Your task to perform on an android device: snooze an email in the gmail app Image 0: 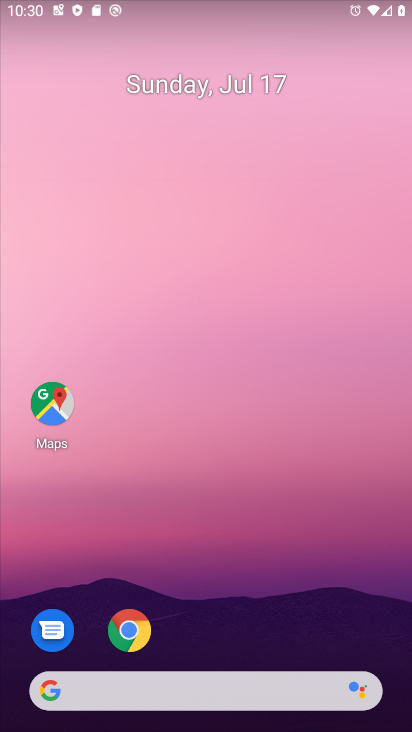
Step 0: press home button
Your task to perform on an android device: snooze an email in the gmail app Image 1: 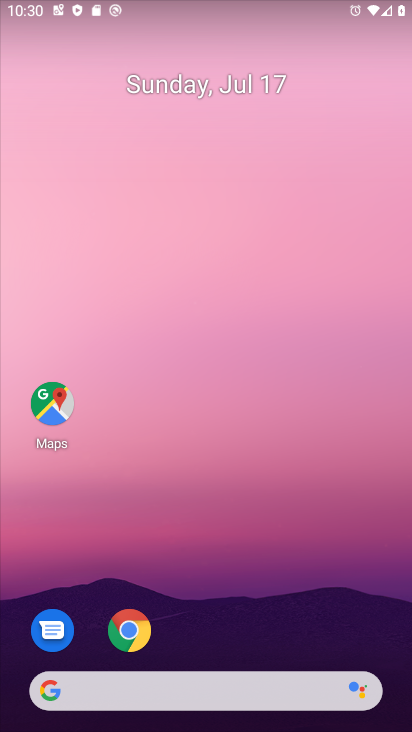
Step 1: click (343, 83)
Your task to perform on an android device: snooze an email in the gmail app Image 2: 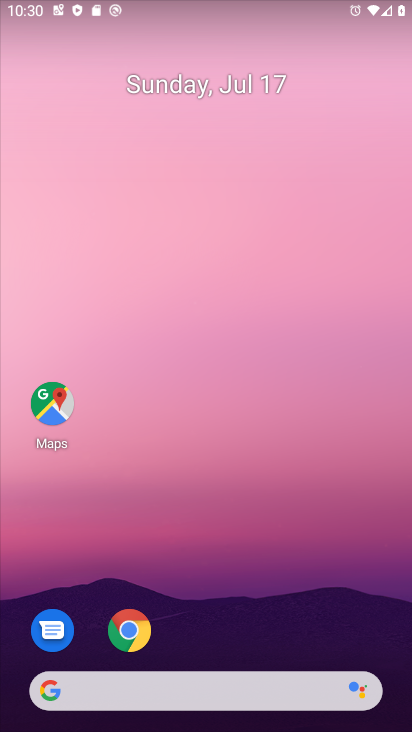
Step 2: drag from (342, 557) to (384, 92)
Your task to perform on an android device: snooze an email in the gmail app Image 3: 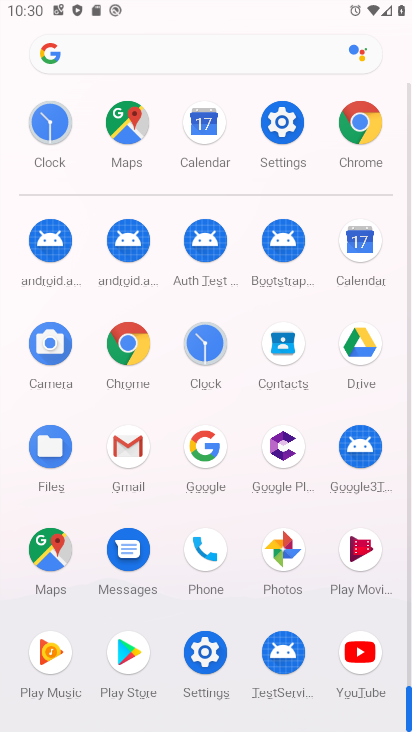
Step 3: click (130, 452)
Your task to perform on an android device: snooze an email in the gmail app Image 4: 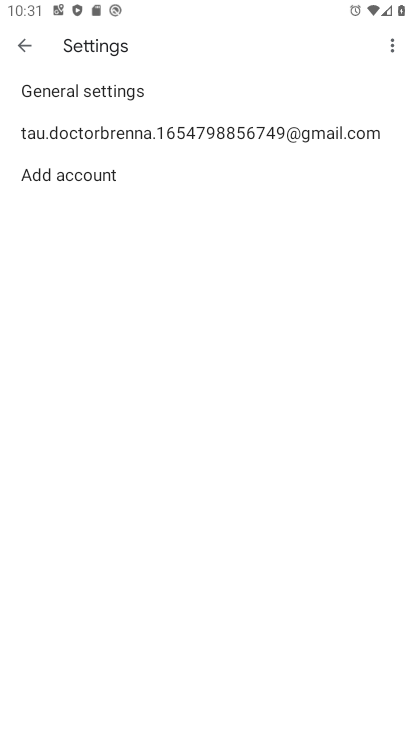
Step 4: press home button
Your task to perform on an android device: snooze an email in the gmail app Image 5: 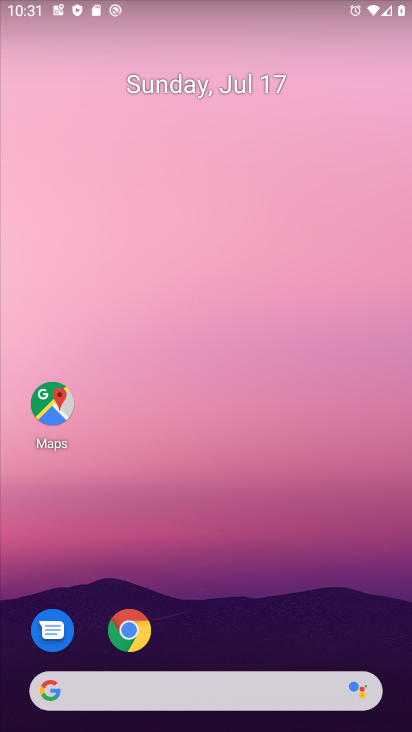
Step 5: drag from (378, 609) to (368, 91)
Your task to perform on an android device: snooze an email in the gmail app Image 6: 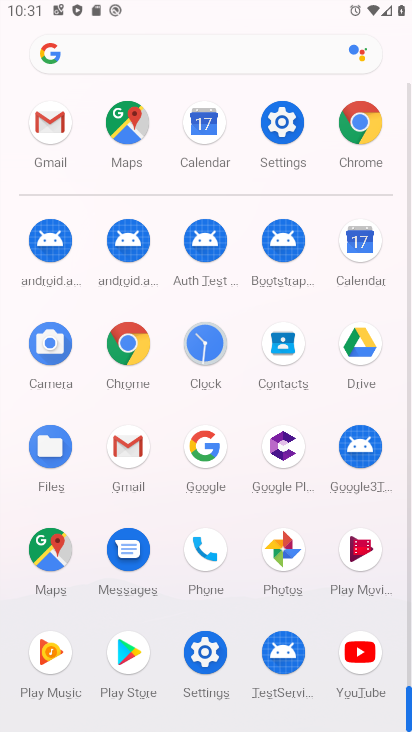
Step 6: click (125, 445)
Your task to perform on an android device: snooze an email in the gmail app Image 7: 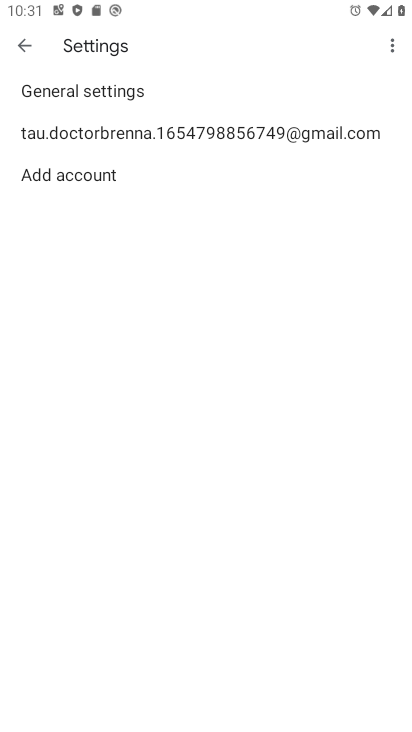
Step 7: press back button
Your task to perform on an android device: snooze an email in the gmail app Image 8: 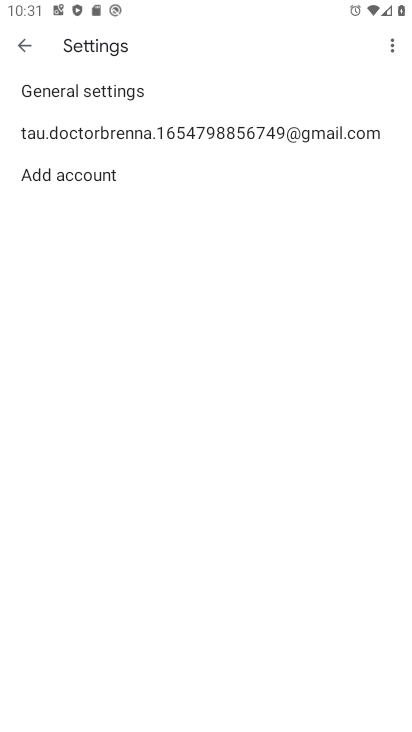
Step 8: click (22, 39)
Your task to perform on an android device: snooze an email in the gmail app Image 9: 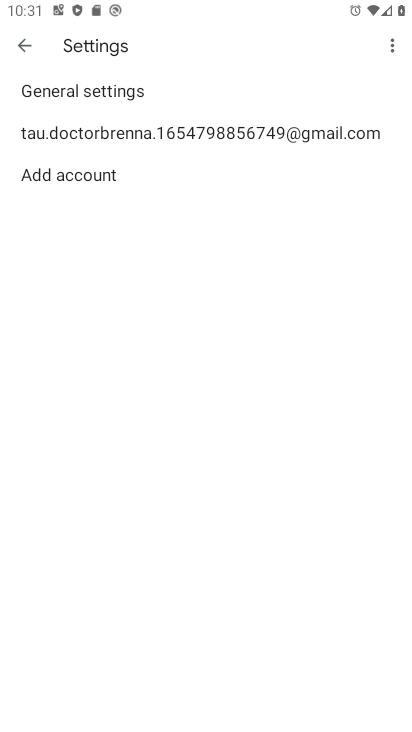
Step 9: press back button
Your task to perform on an android device: snooze an email in the gmail app Image 10: 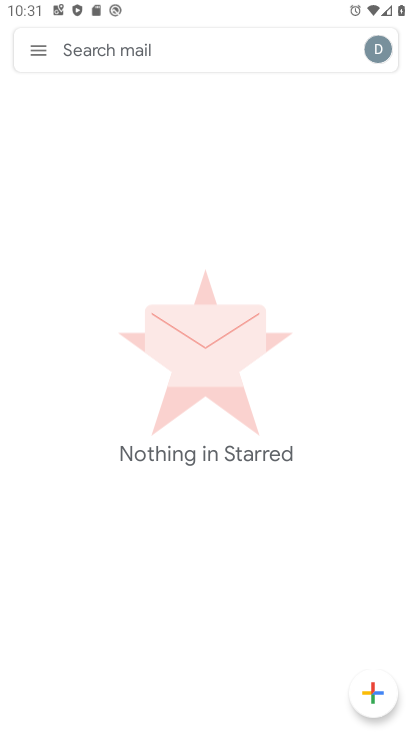
Step 10: click (41, 45)
Your task to perform on an android device: snooze an email in the gmail app Image 11: 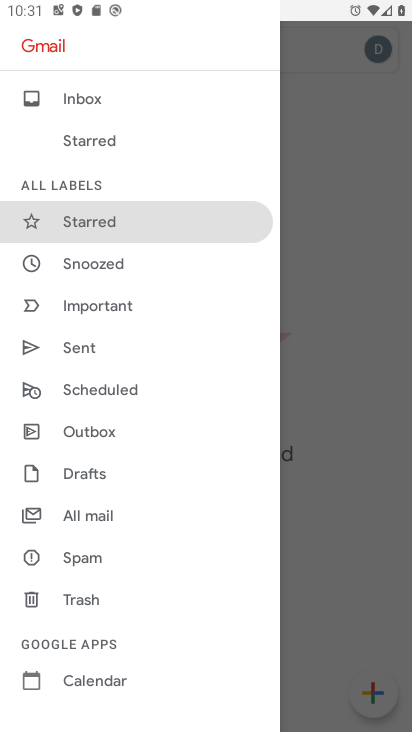
Step 11: click (118, 270)
Your task to perform on an android device: snooze an email in the gmail app Image 12: 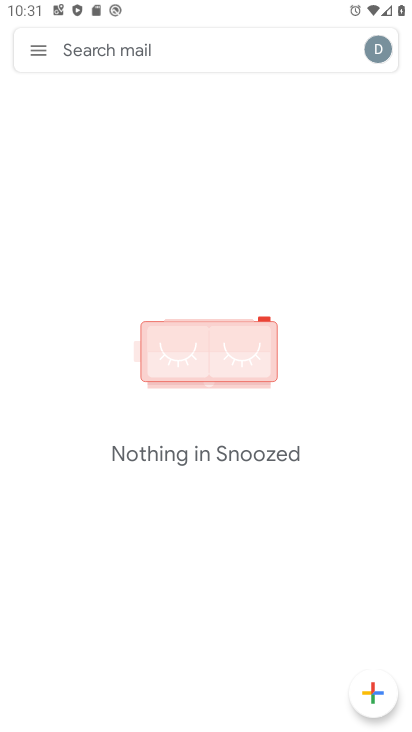
Step 12: task complete